Your task to perform on an android device: turn on priority inbox in the gmail app Image 0: 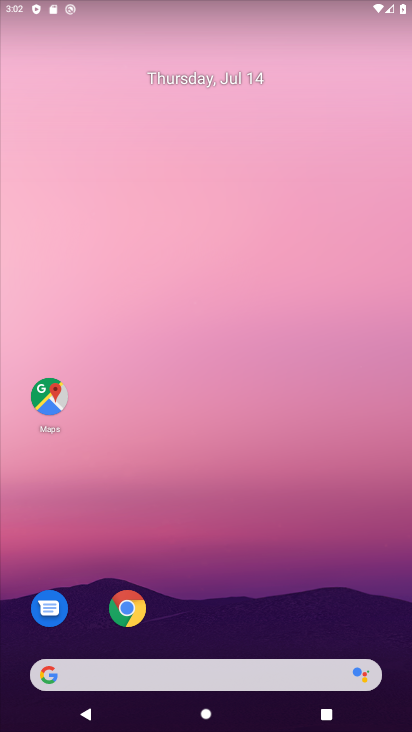
Step 0: drag from (215, 668) to (168, 123)
Your task to perform on an android device: turn on priority inbox in the gmail app Image 1: 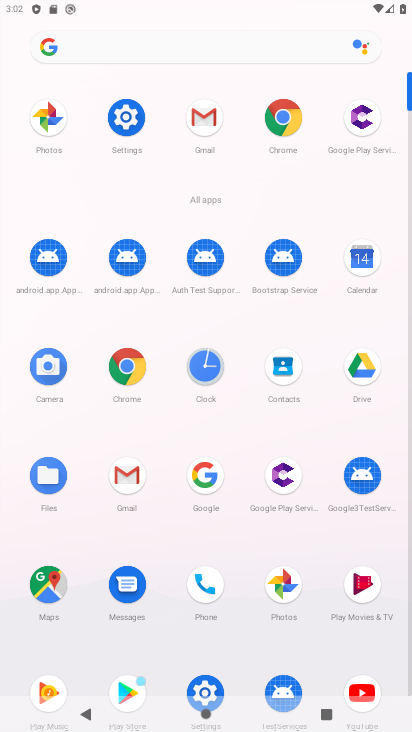
Step 1: click (197, 113)
Your task to perform on an android device: turn on priority inbox in the gmail app Image 2: 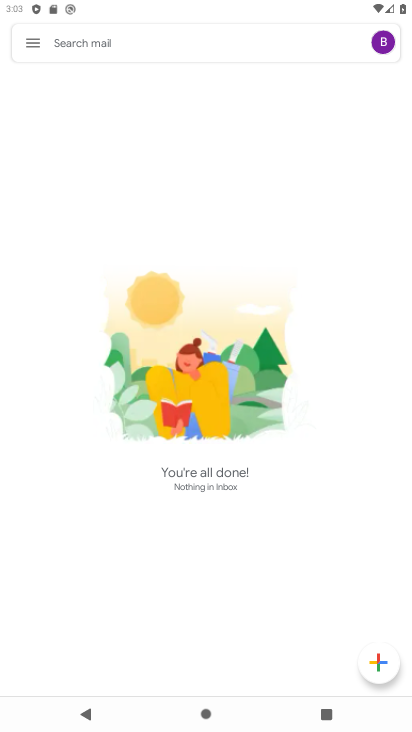
Step 2: click (33, 43)
Your task to perform on an android device: turn on priority inbox in the gmail app Image 3: 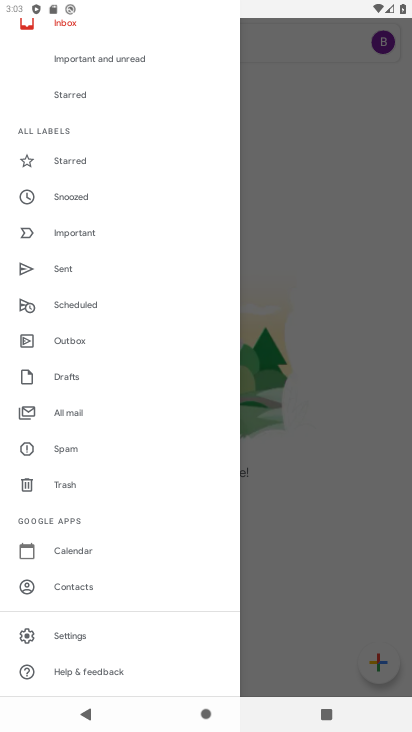
Step 3: click (64, 632)
Your task to perform on an android device: turn on priority inbox in the gmail app Image 4: 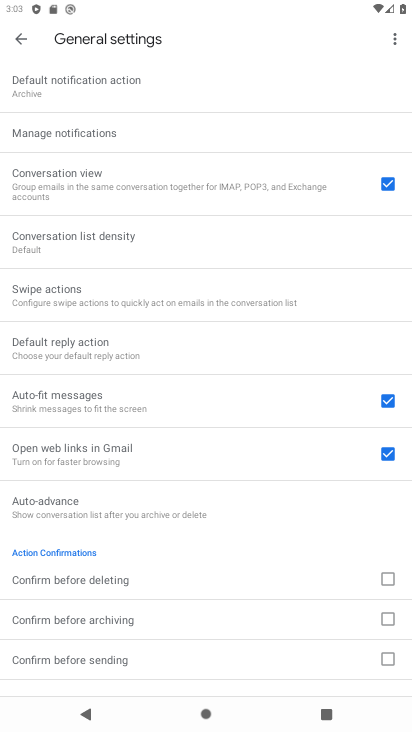
Step 4: click (23, 42)
Your task to perform on an android device: turn on priority inbox in the gmail app Image 5: 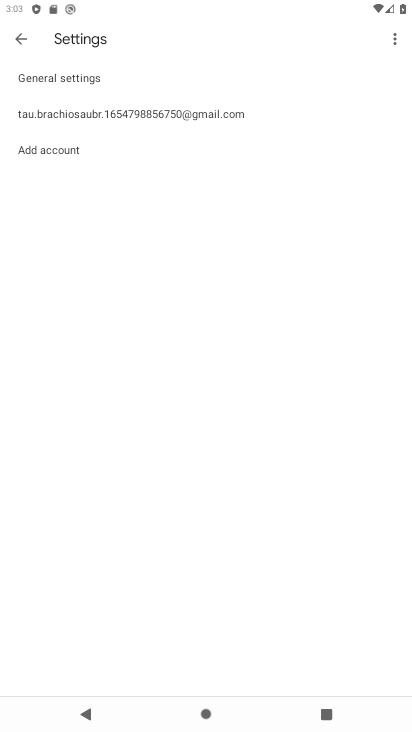
Step 5: click (50, 114)
Your task to perform on an android device: turn on priority inbox in the gmail app Image 6: 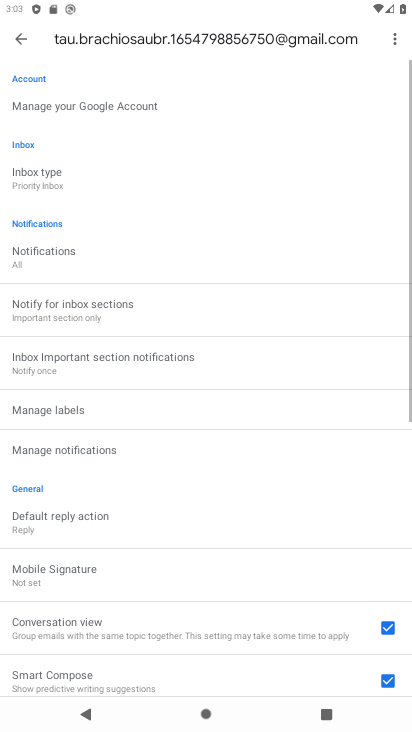
Step 6: click (55, 181)
Your task to perform on an android device: turn on priority inbox in the gmail app Image 7: 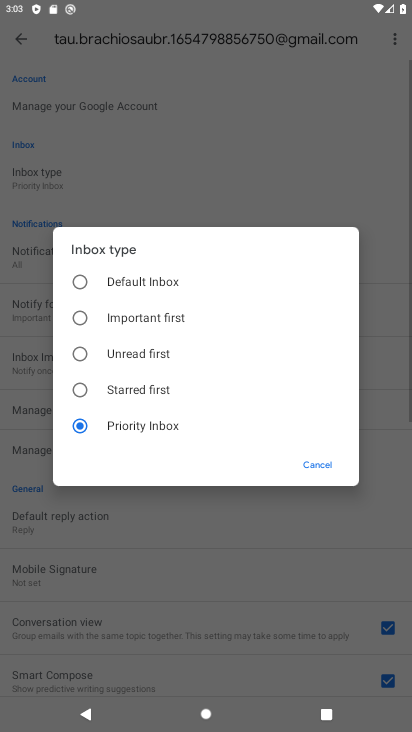
Step 7: click (108, 424)
Your task to perform on an android device: turn on priority inbox in the gmail app Image 8: 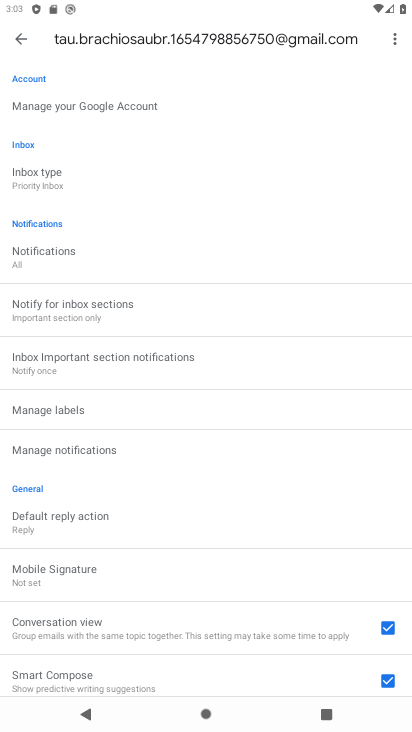
Step 8: task complete